Your task to perform on an android device: What's the weather? Image 0: 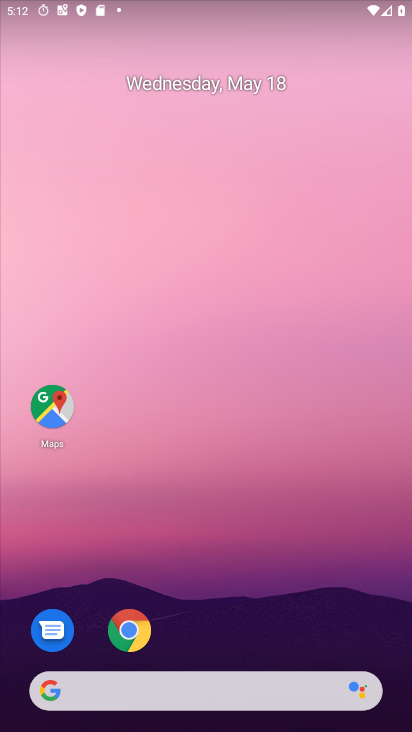
Step 0: drag from (247, 661) to (301, 312)
Your task to perform on an android device: What's the weather? Image 1: 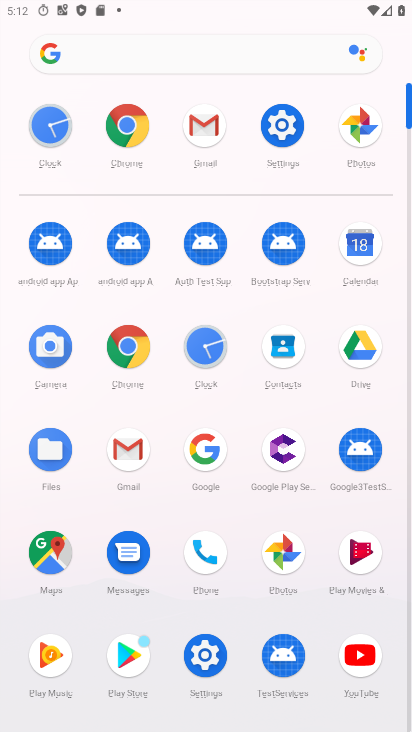
Step 1: click (210, 451)
Your task to perform on an android device: What's the weather? Image 2: 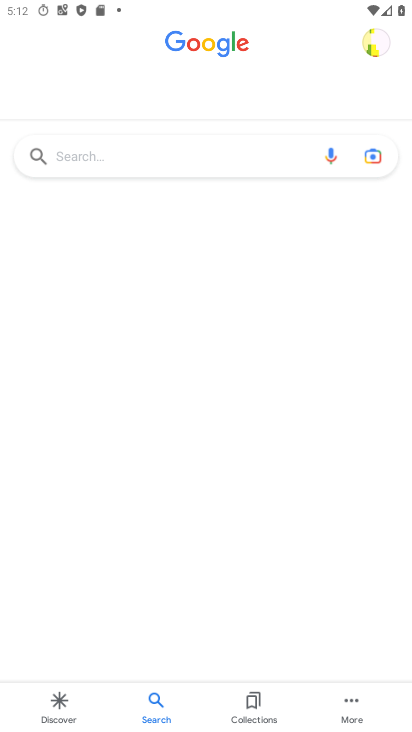
Step 2: drag from (146, 158) to (62, 158)
Your task to perform on an android device: What's the weather? Image 3: 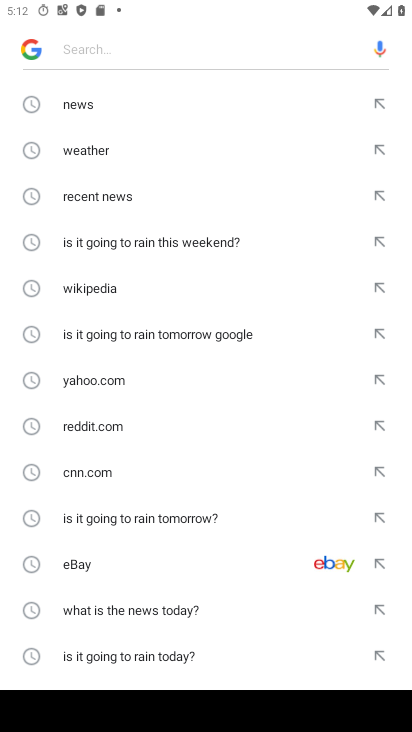
Step 3: click (85, 154)
Your task to perform on an android device: What's the weather? Image 4: 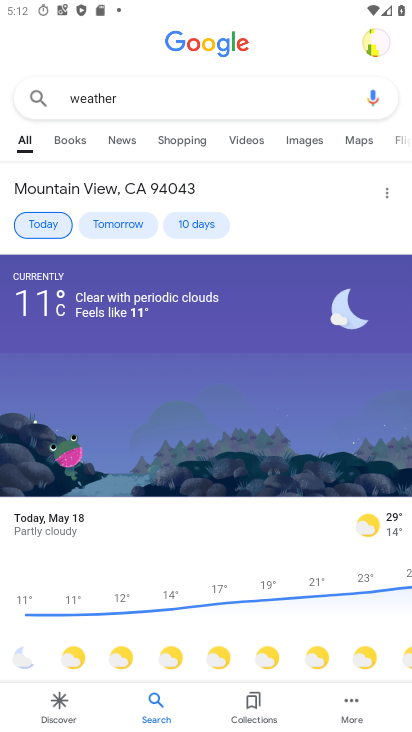
Step 4: task complete